Your task to perform on an android device: Open network settings Image 0: 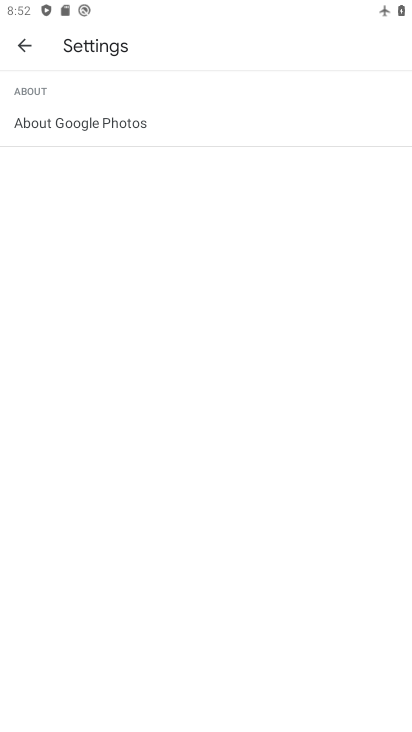
Step 0: press home button
Your task to perform on an android device: Open network settings Image 1: 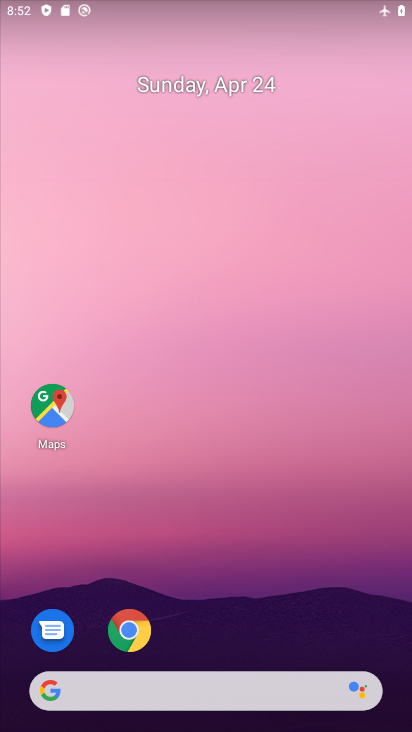
Step 1: drag from (185, 511) to (194, 211)
Your task to perform on an android device: Open network settings Image 2: 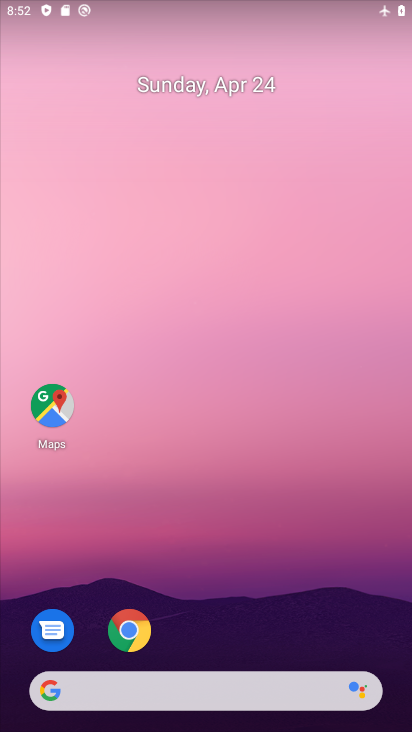
Step 2: drag from (233, 652) to (233, 111)
Your task to perform on an android device: Open network settings Image 3: 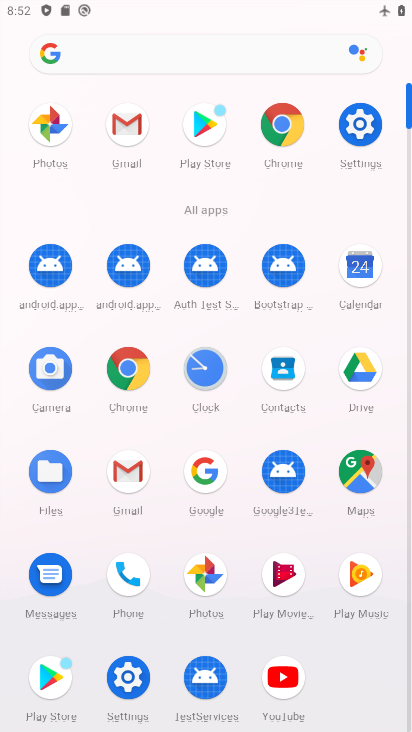
Step 3: click (361, 128)
Your task to perform on an android device: Open network settings Image 4: 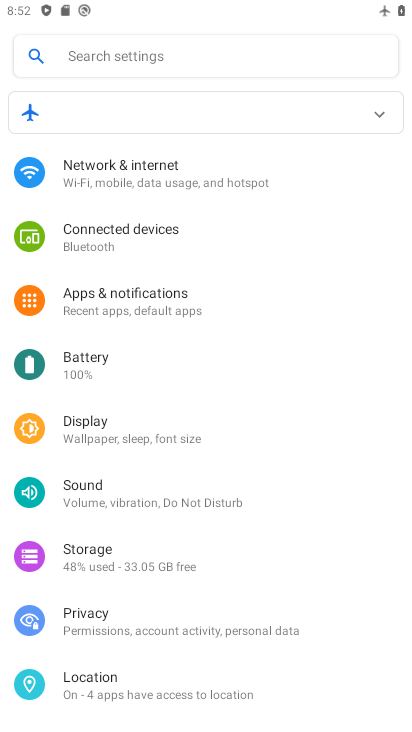
Step 4: click (139, 194)
Your task to perform on an android device: Open network settings Image 5: 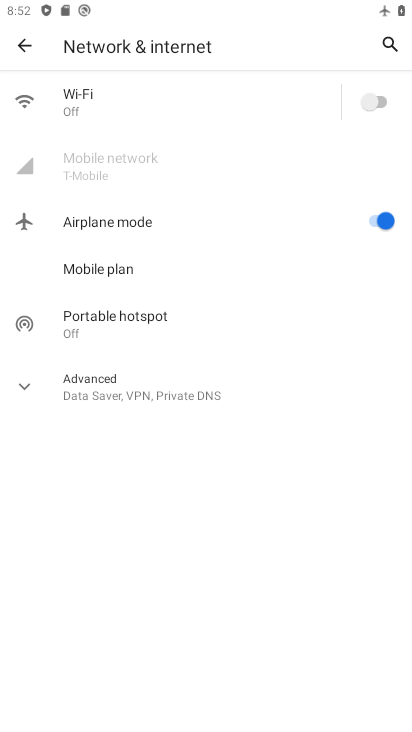
Step 5: task complete